Your task to perform on an android device: toggle wifi Image 0: 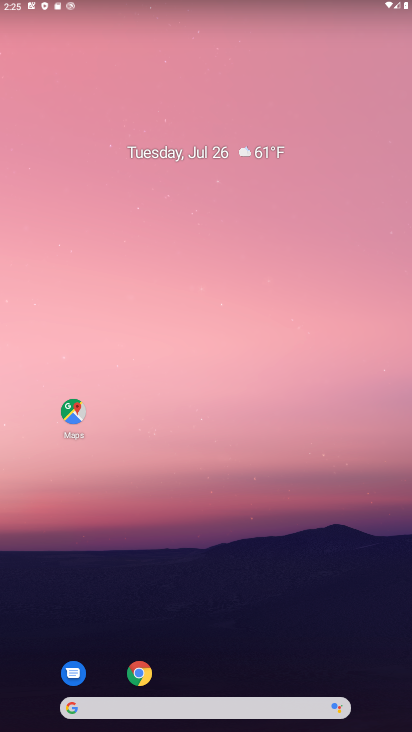
Step 0: drag from (215, 595) to (269, 136)
Your task to perform on an android device: toggle wifi Image 1: 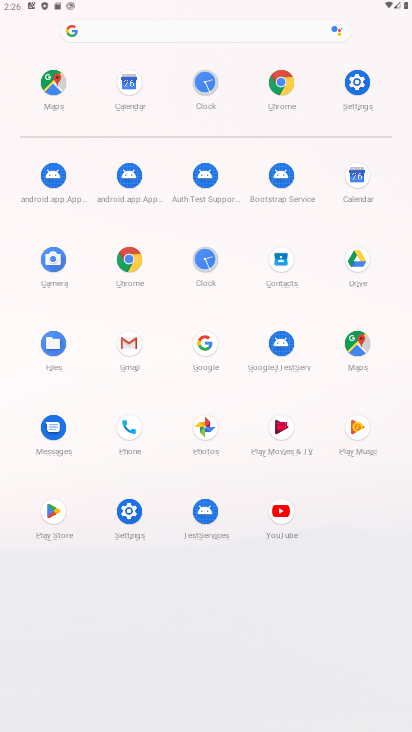
Step 1: click (351, 78)
Your task to perform on an android device: toggle wifi Image 2: 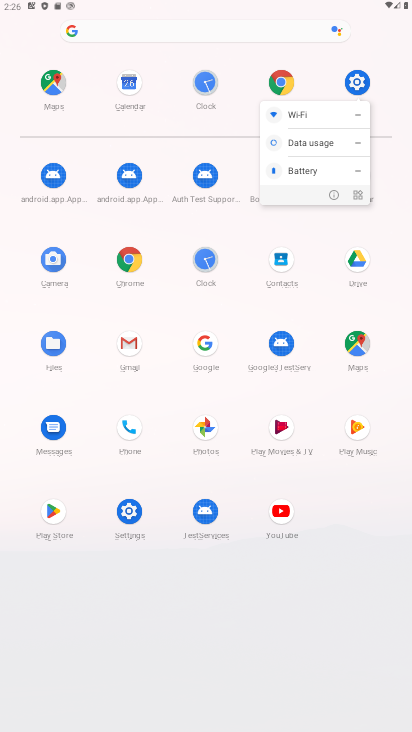
Step 2: click (333, 188)
Your task to perform on an android device: toggle wifi Image 3: 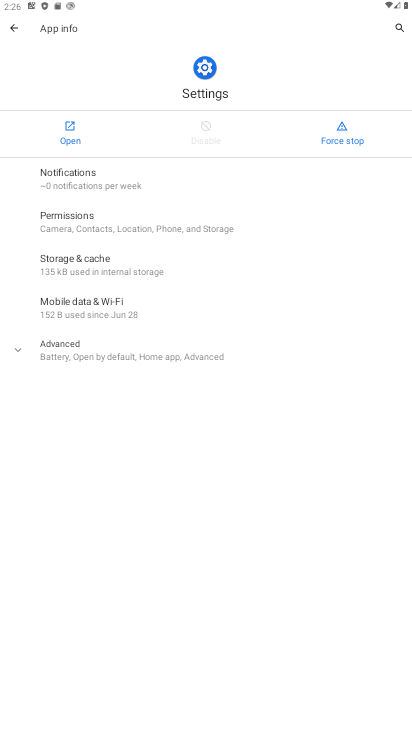
Step 3: click (59, 120)
Your task to perform on an android device: toggle wifi Image 4: 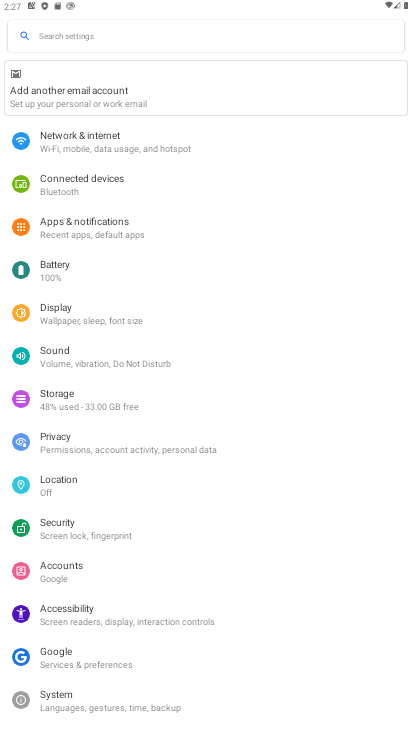
Step 4: click (111, 145)
Your task to perform on an android device: toggle wifi Image 5: 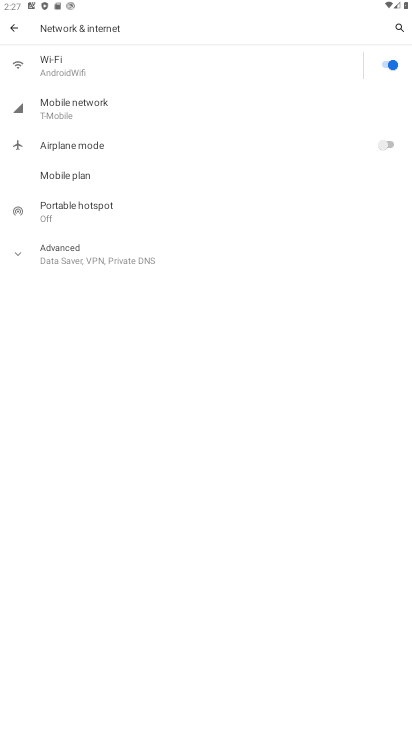
Step 5: click (81, 73)
Your task to perform on an android device: toggle wifi Image 6: 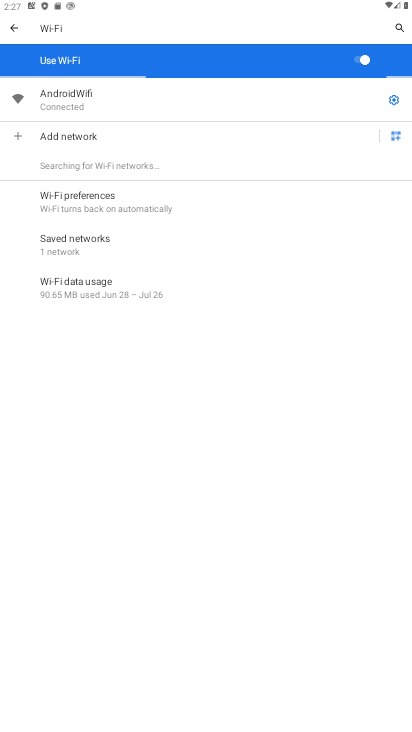
Step 6: click (349, 58)
Your task to perform on an android device: toggle wifi Image 7: 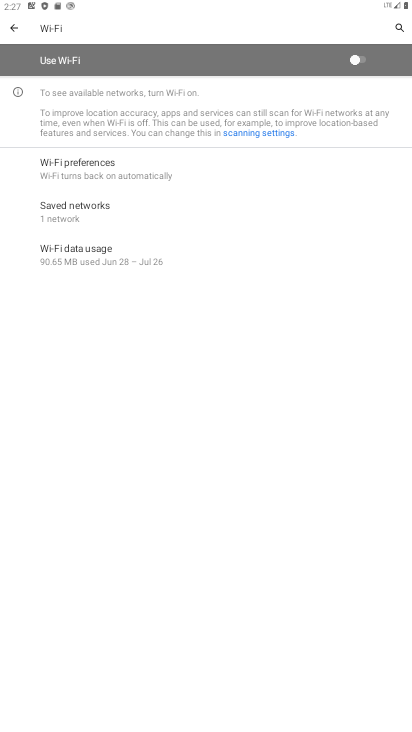
Step 7: task complete